Your task to perform on an android device: What's on my calendar today? Image 0: 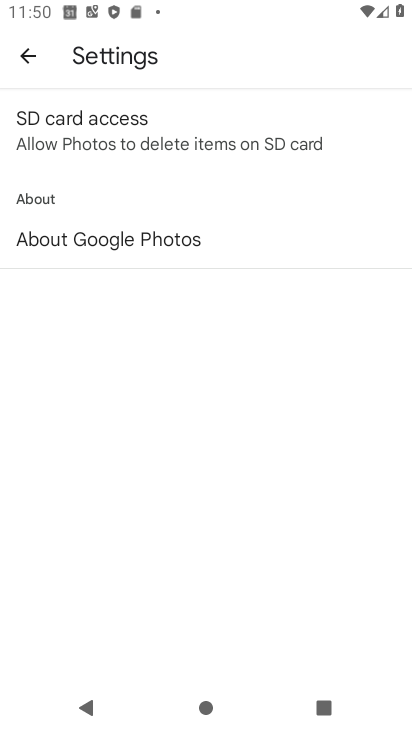
Step 0: press home button
Your task to perform on an android device: What's on my calendar today? Image 1: 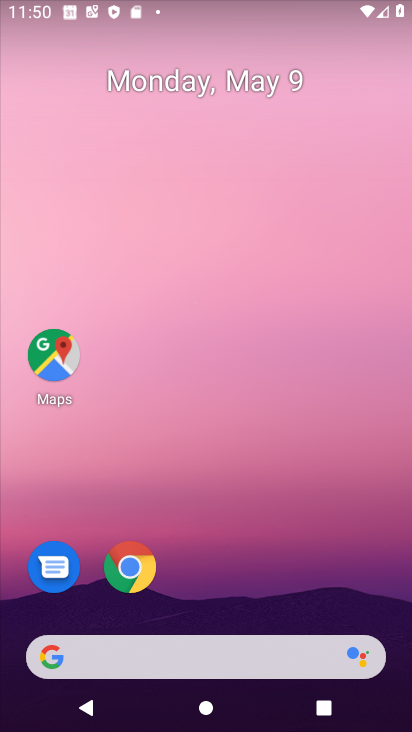
Step 1: drag from (211, 666) to (261, 30)
Your task to perform on an android device: What's on my calendar today? Image 2: 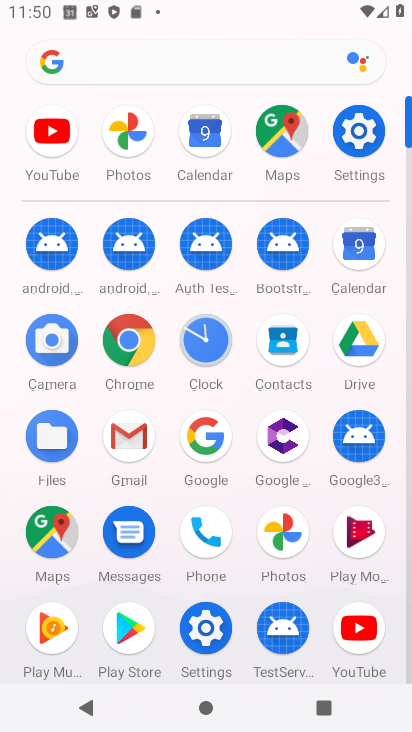
Step 2: click (338, 261)
Your task to perform on an android device: What's on my calendar today? Image 3: 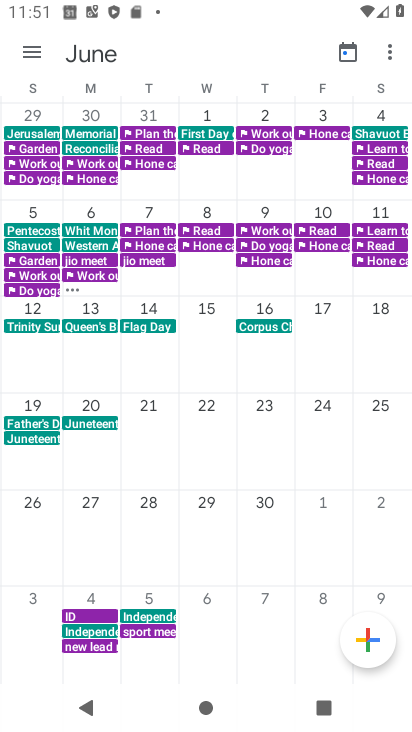
Step 3: click (29, 52)
Your task to perform on an android device: What's on my calendar today? Image 4: 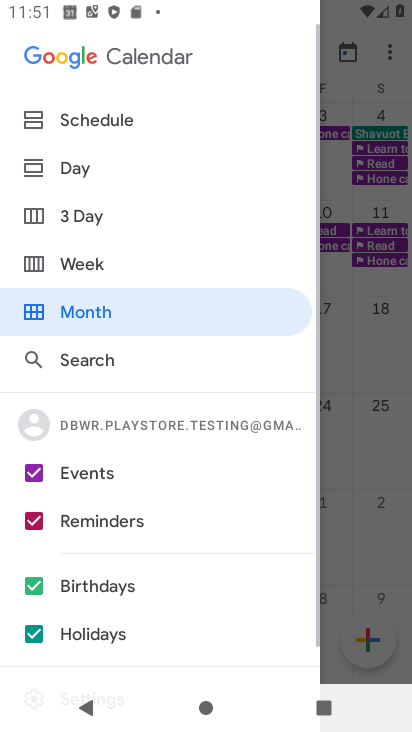
Step 4: click (79, 118)
Your task to perform on an android device: What's on my calendar today? Image 5: 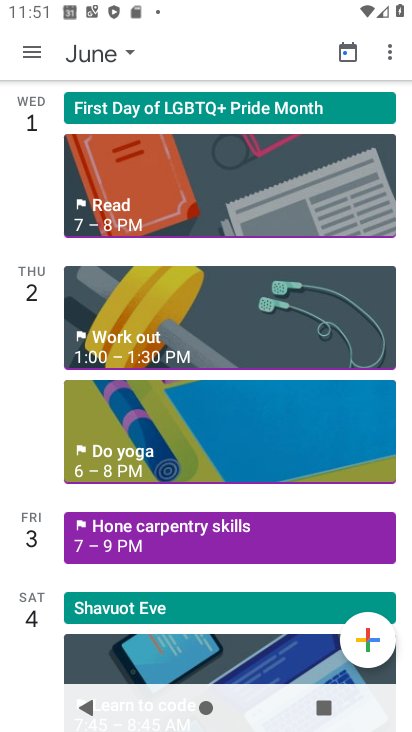
Step 5: click (122, 58)
Your task to perform on an android device: What's on my calendar today? Image 6: 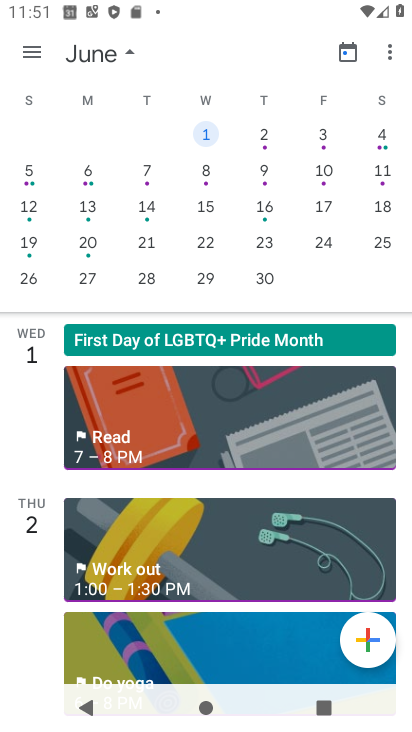
Step 6: drag from (56, 187) to (354, 207)
Your task to perform on an android device: What's on my calendar today? Image 7: 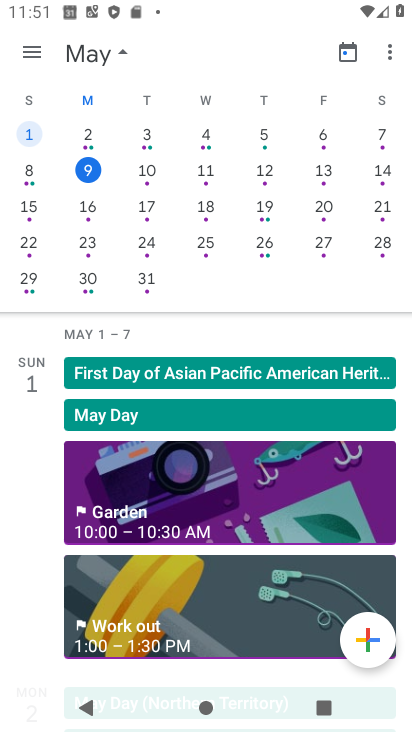
Step 7: click (87, 170)
Your task to perform on an android device: What's on my calendar today? Image 8: 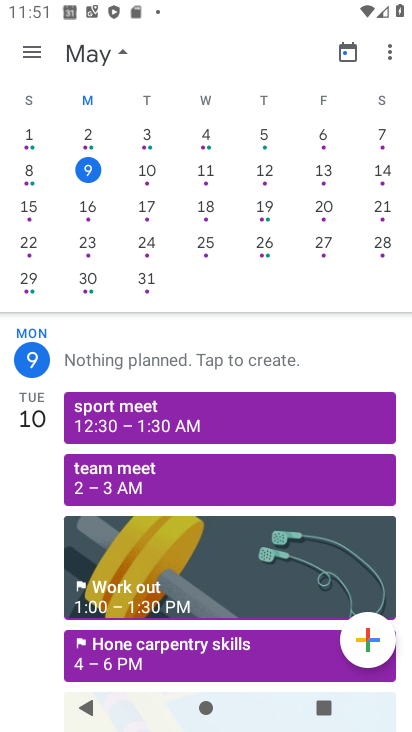
Step 8: click (118, 55)
Your task to perform on an android device: What's on my calendar today? Image 9: 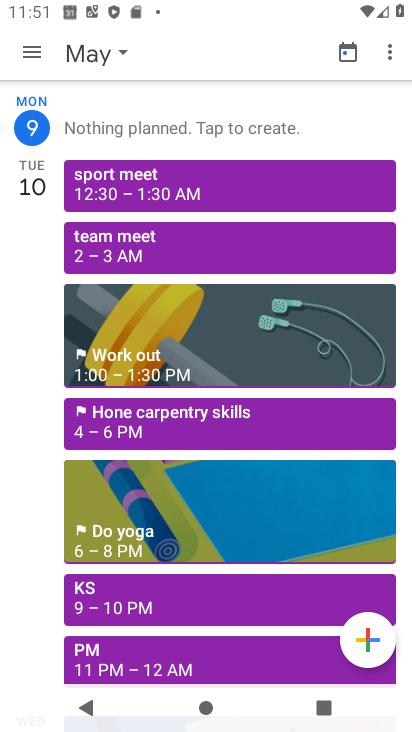
Step 9: task complete